Your task to perform on an android device: Open Wikipedia Image 0: 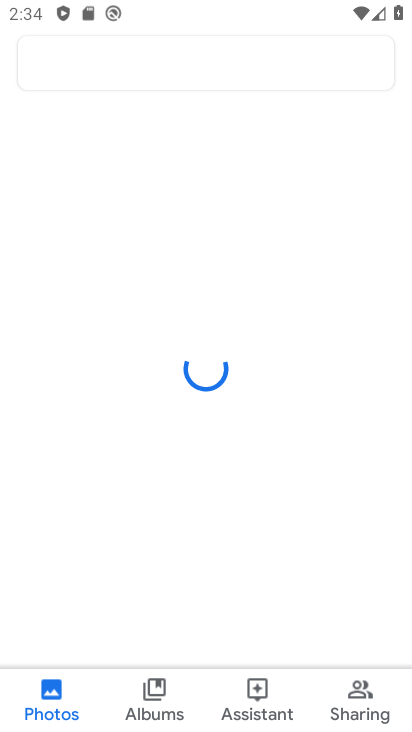
Step 0: press home button
Your task to perform on an android device: Open Wikipedia Image 1: 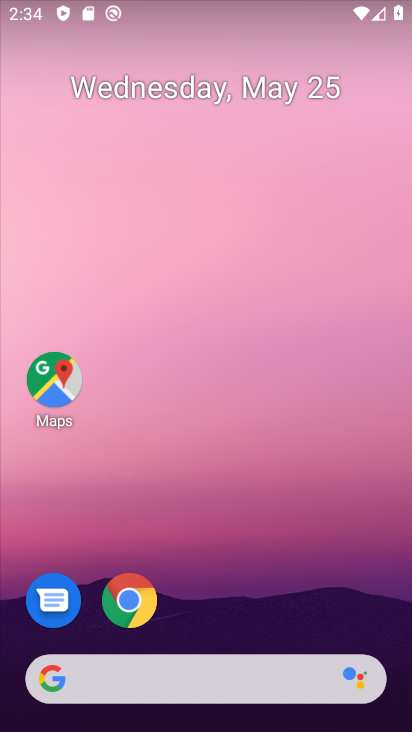
Step 1: click (115, 601)
Your task to perform on an android device: Open Wikipedia Image 2: 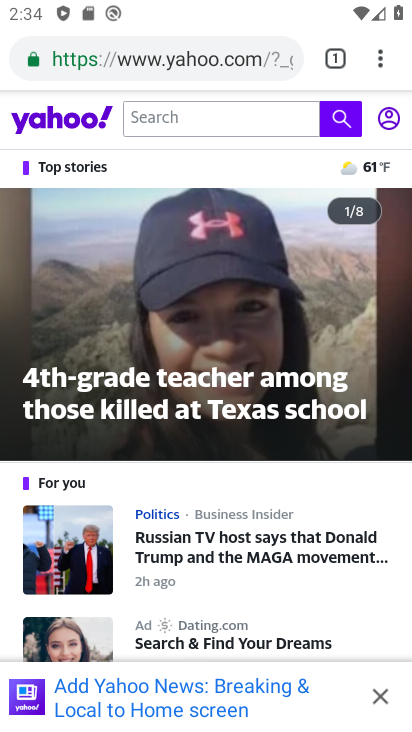
Step 2: click (330, 66)
Your task to perform on an android device: Open Wikipedia Image 3: 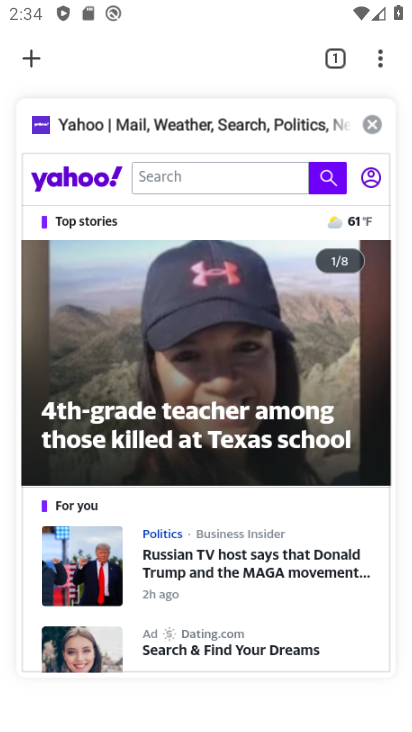
Step 3: click (38, 60)
Your task to perform on an android device: Open Wikipedia Image 4: 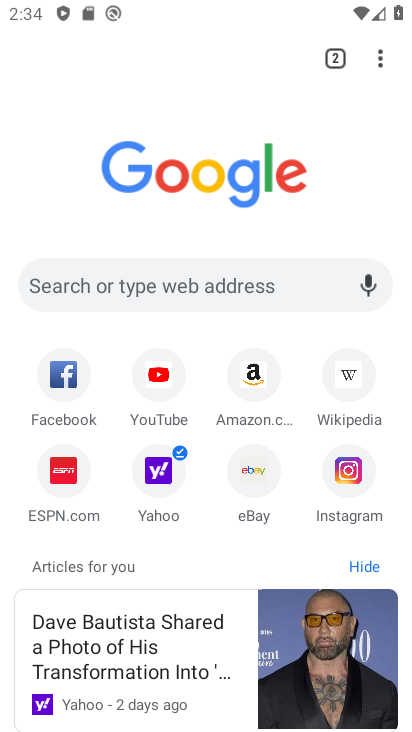
Step 4: click (350, 372)
Your task to perform on an android device: Open Wikipedia Image 5: 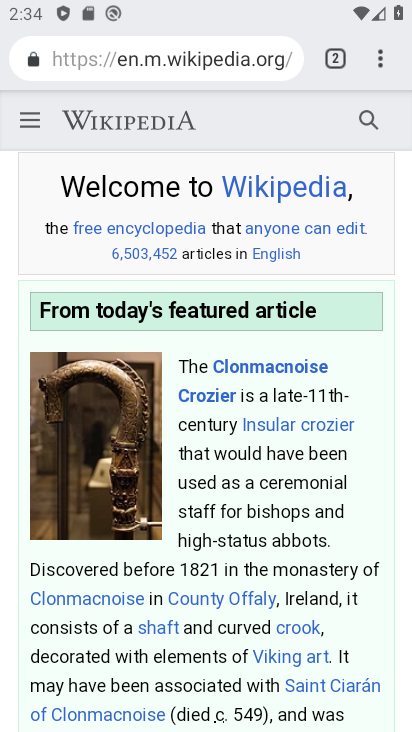
Step 5: task complete